Your task to perform on an android device: Clear the shopping cart on ebay.com. Add lenovo thinkpad to the cart on ebay.com, then select checkout. Image 0: 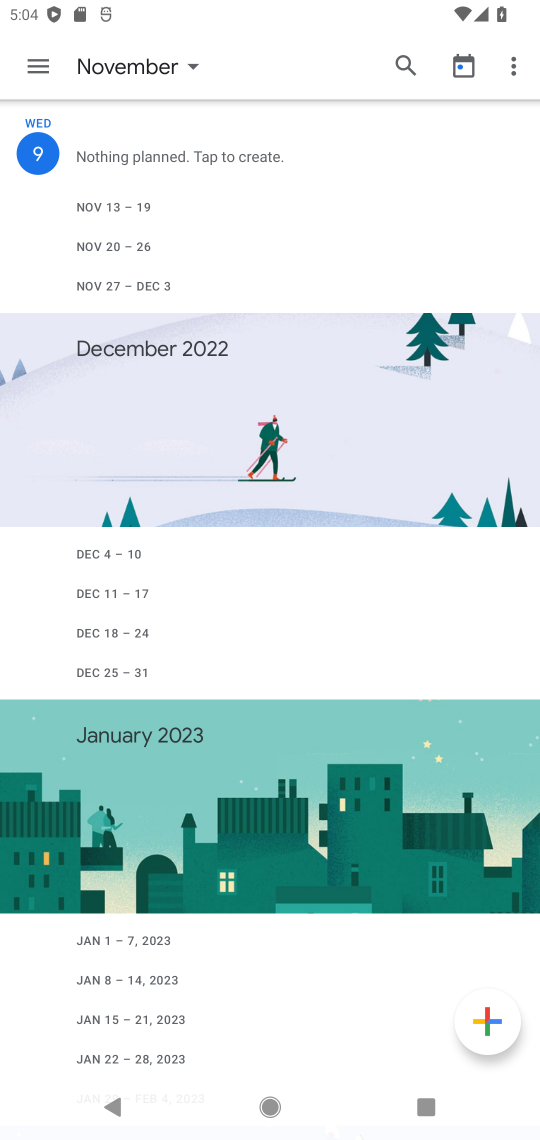
Step 0: press home button
Your task to perform on an android device: Clear the shopping cart on ebay.com. Add lenovo thinkpad to the cart on ebay.com, then select checkout. Image 1: 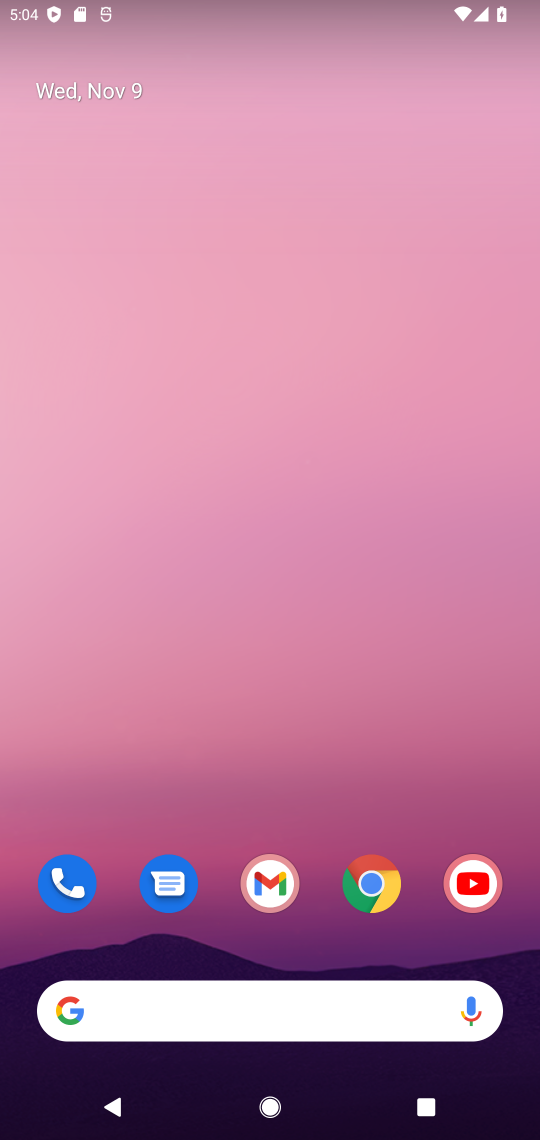
Step 1: click (365, 863)
Your task to perform on an android device: Clear the shopping cart on ebay.com. Add lenovo thinkpad to the cart on ebay.com, then select checkout. Image 2: 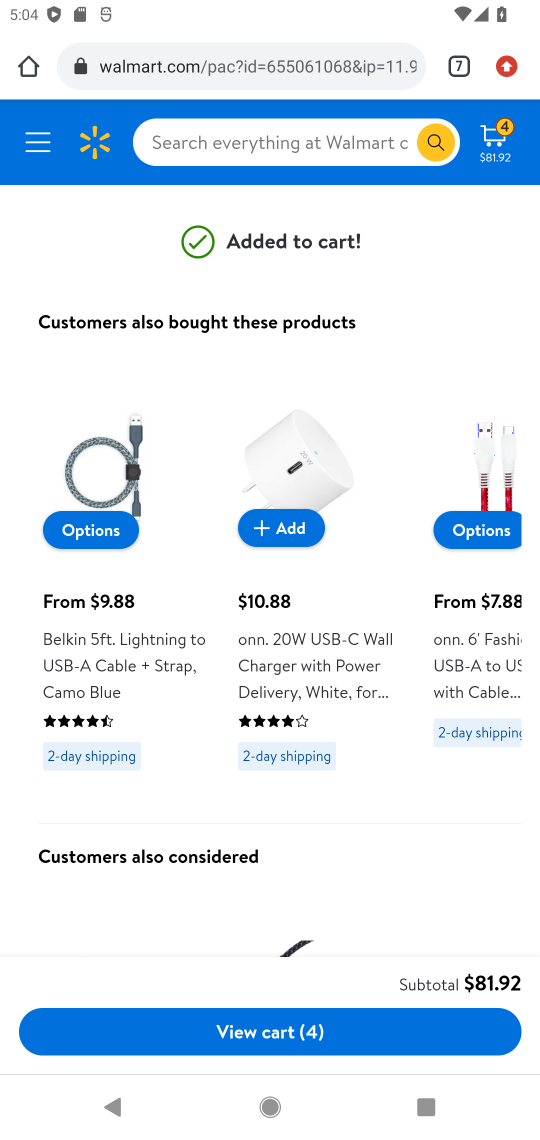
Step 2: click (458, 59)
Your task to perform on an android device: Clear the shopping cart on ebay.com. Add lenovo thinkpad to the cart on ebay.com, then select checkout. Image 3: 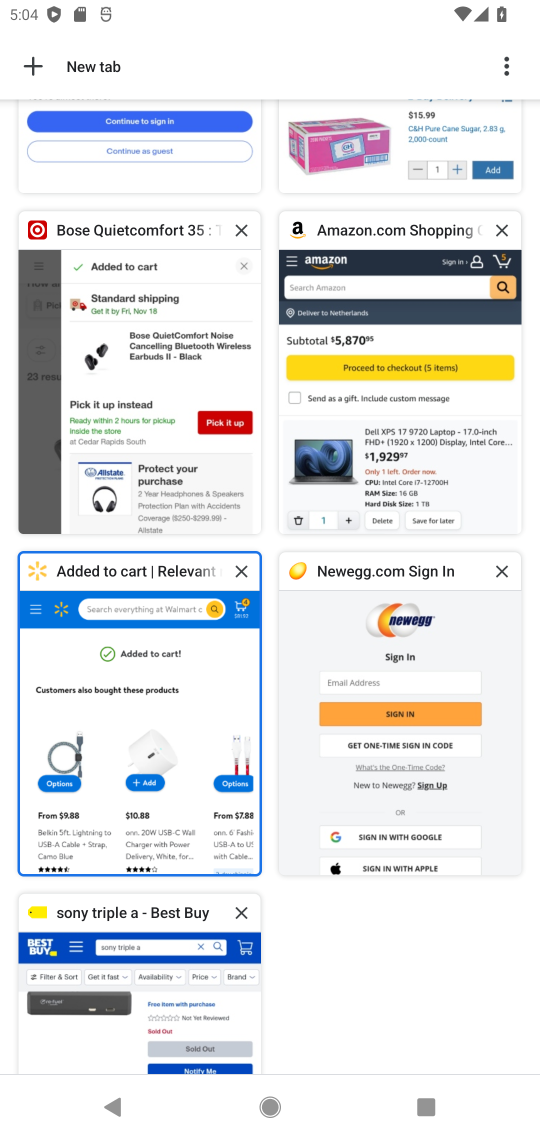
Step 3: drag from (350, 232) to (211, 875)
Your task to perform on an android device: Clear the shopping cart on ebay.com. Add lenovo thinkpad to the cart on ebay.com, then select checkout. Image 4: 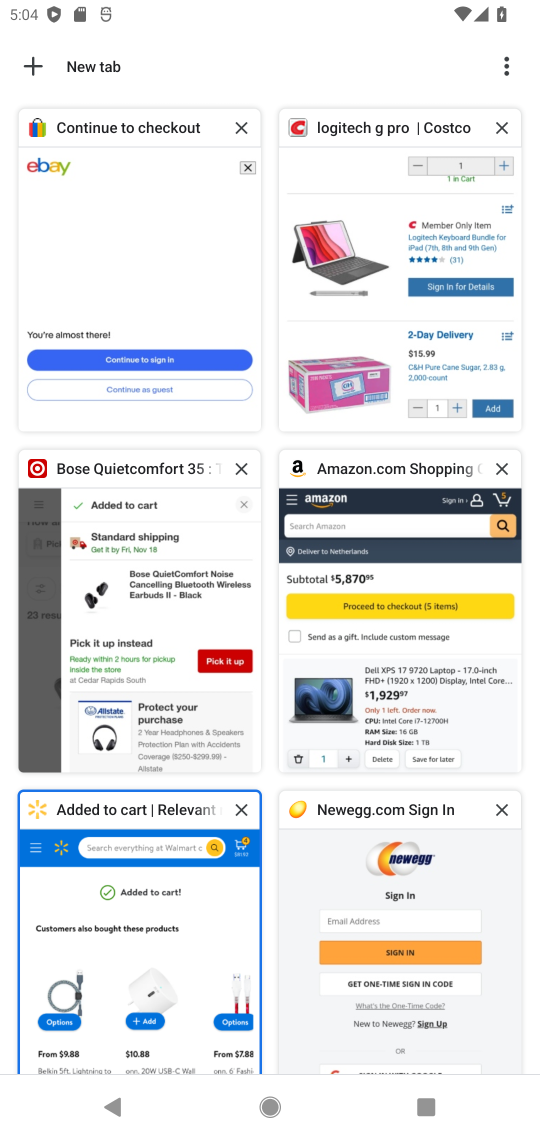
Step 4: click (71, 229)
Your task to perform on an android device: Clear the shopping cart on ebay.com. Add lenovo thinkpad to the cart on ebay.com, then select checkout. Image 5: 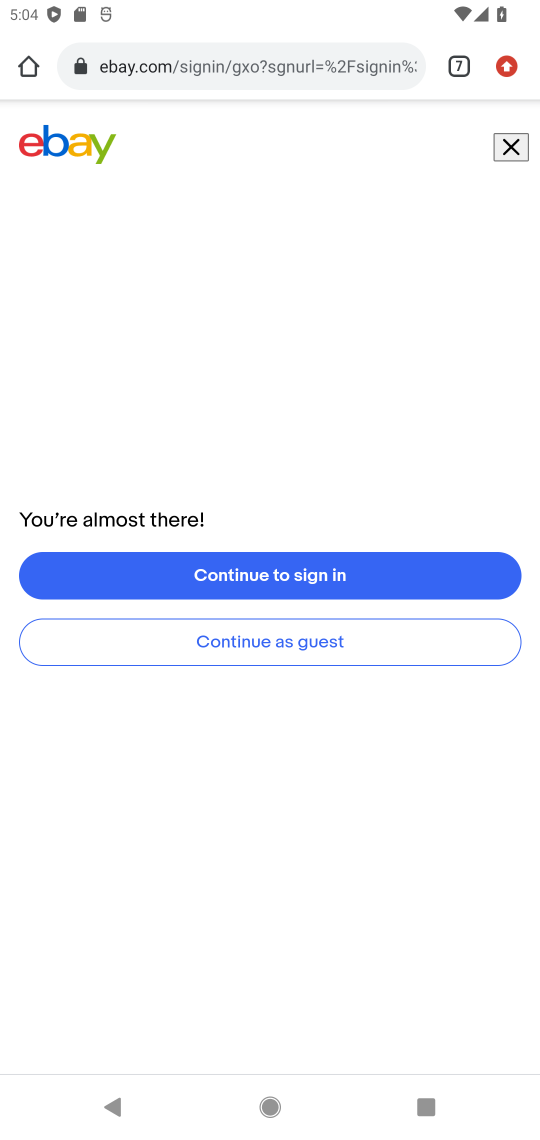
Step 5: press back button
Your task to perform on an android device: Clear the shopping cart on ebay.com. Add lenovo thinkpad to the cart on ebay.com, then select checkout. Image 6: 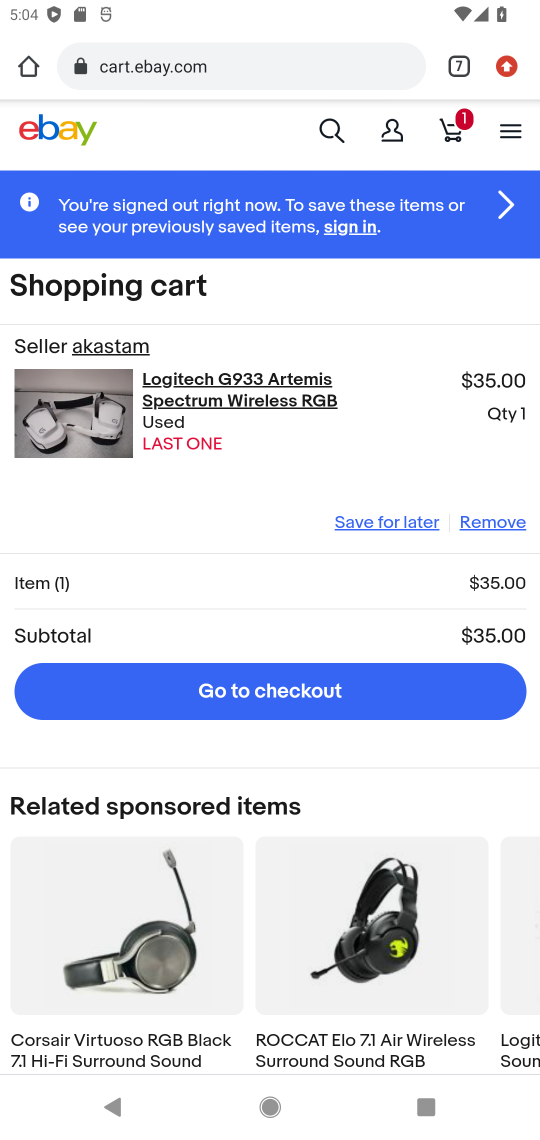
Step 6: click (329, 131)
Your task to perform on an android device: Clear the shopping cart on ebay.com. Add lenovo thinkpad to the cart on ebay.com, then select checkout. Image 7: 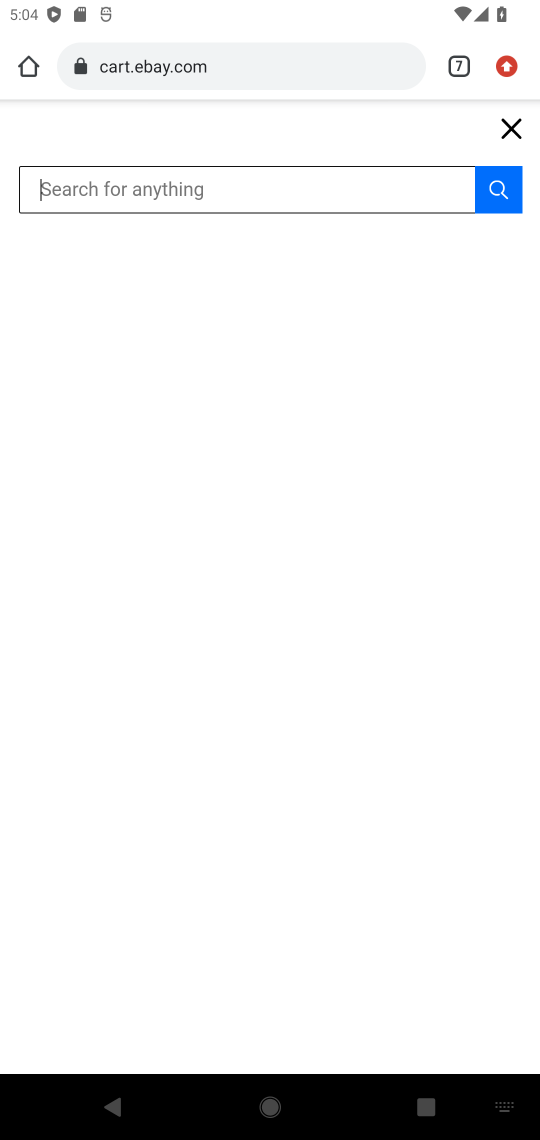
Step 7: type "lenovo thinkpad"
Your task to perform on an android device: Clear the shopping cart on ebay.com. Add lenovo thinkpad to the cart on ebay.com, then select checkout. Image 8: 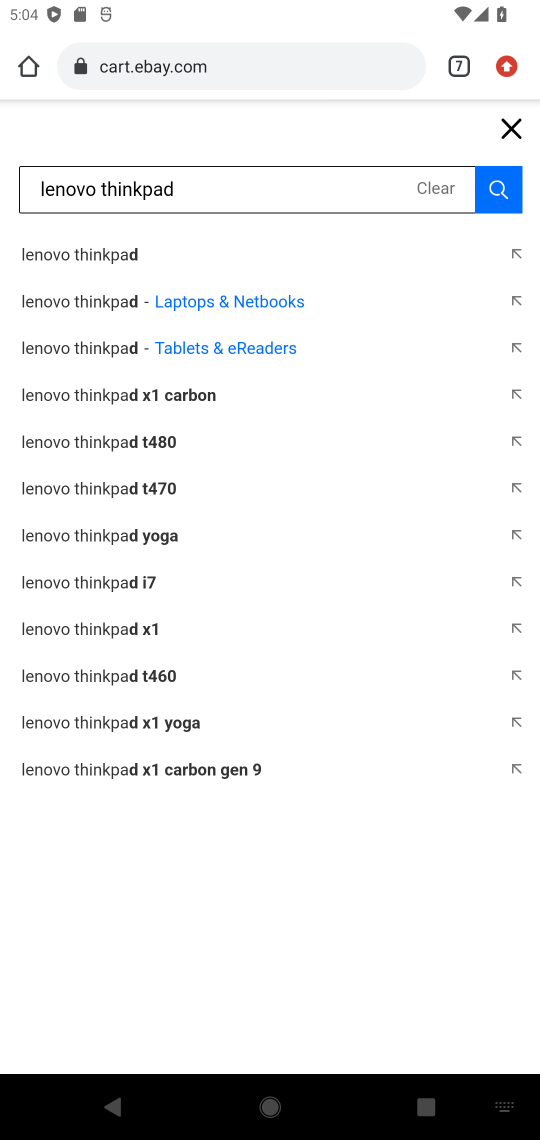
Step 8: click (67, 298)
Your task to perform on an android device: Clear the shopping cart on ebay.com. Add lenovo thinkpad to the cart on ebay.com, then select checkout. Image 9: 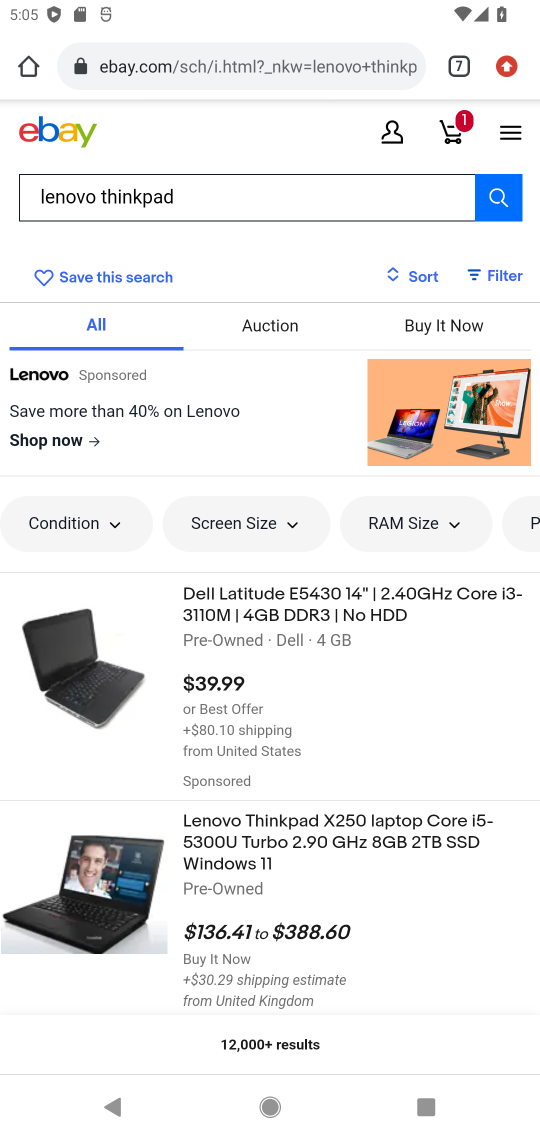
Step 9: click (334, 841)
Your task to perform on an android device: Clear the shopping cart on ebay.com. Add lenovo thinkpad to the cart on ebay.com, then select checkout. Image 10: 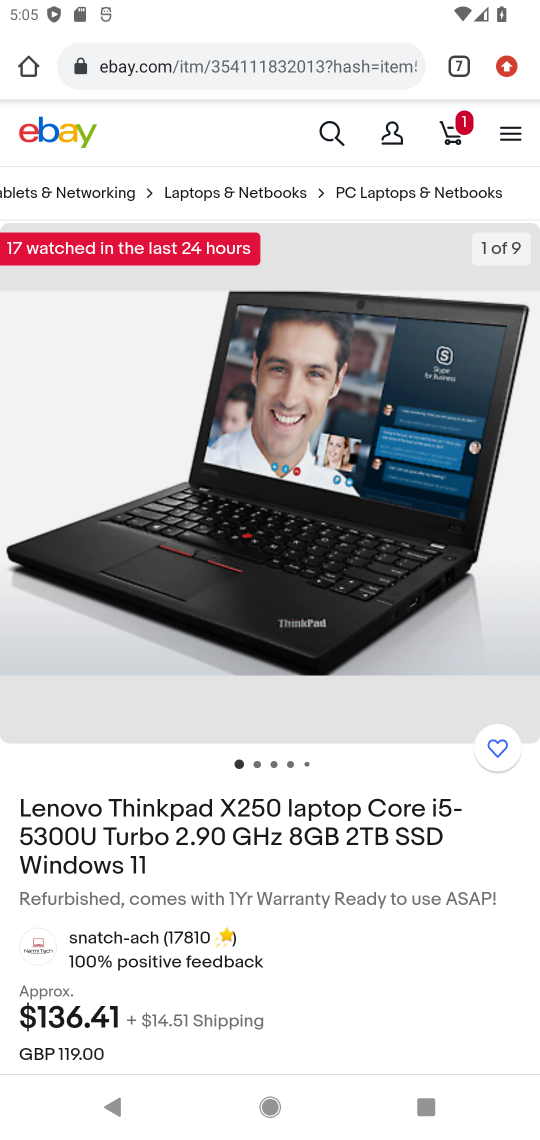
Step 10: drag from (287, 914) to (350, 279)
Your task to perform on an android device: Clear the shopping cart on ebay.com. Add lenovo thinkpad to the cart on ebay.com, then select checkout. Image 11: 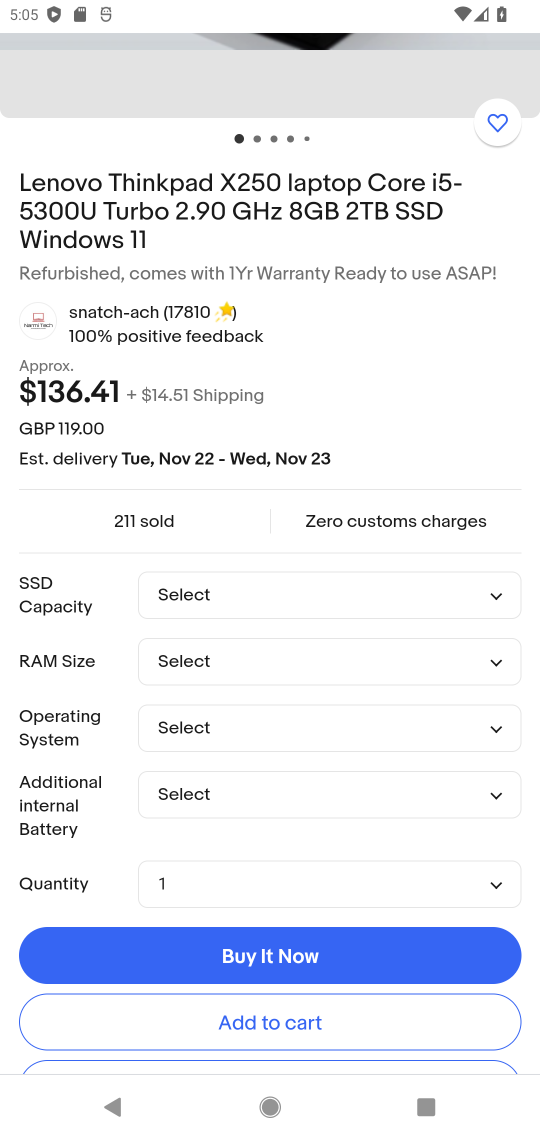
Step 11: click (285, 1030)
Your task to perform on an android device: Clear the shopping cart on ebay.com. Add lenovo thinkpad to the cart on ebay.com, then select checkout. Image 12: 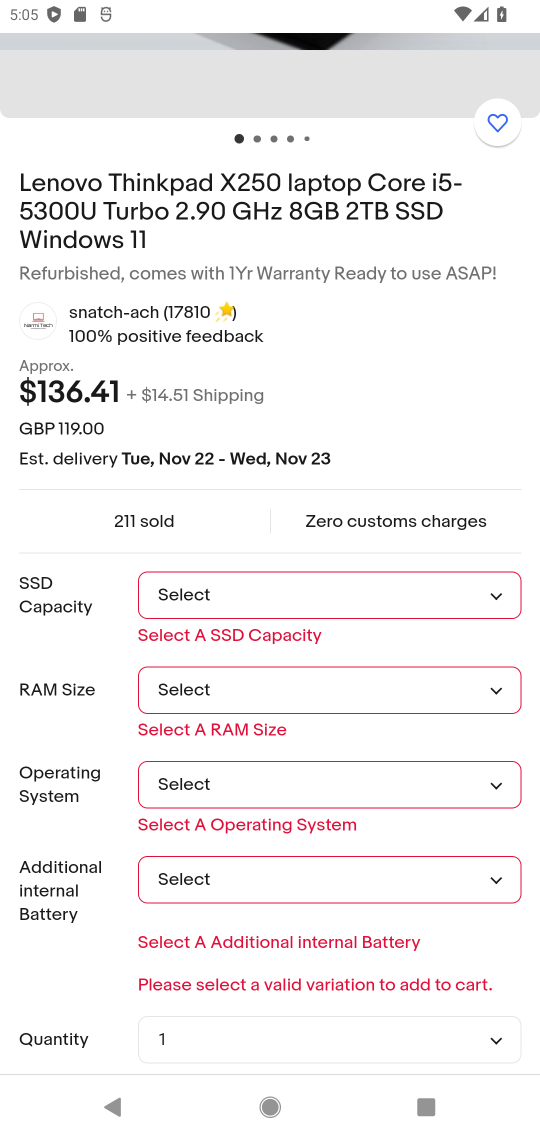
Step 12: click (495, 581)
Your task to perform on an android device: Clear the shopping cart on ebay.com. Add lenovo thinkpad to the cart on ebay.com, then select checkout. Image 13: 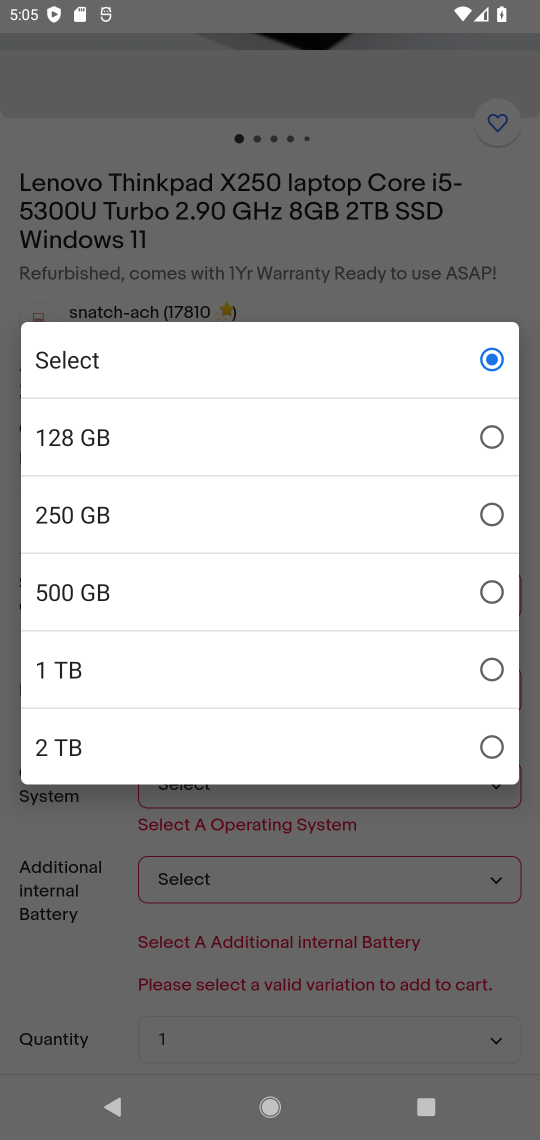
Step 13: click (495, 436)
Your task to perform on an android device: Clear the shopping cart on ebay.com. Add lenovo thinkpad to the cart on ebay.com, then select checkout. Image 14: 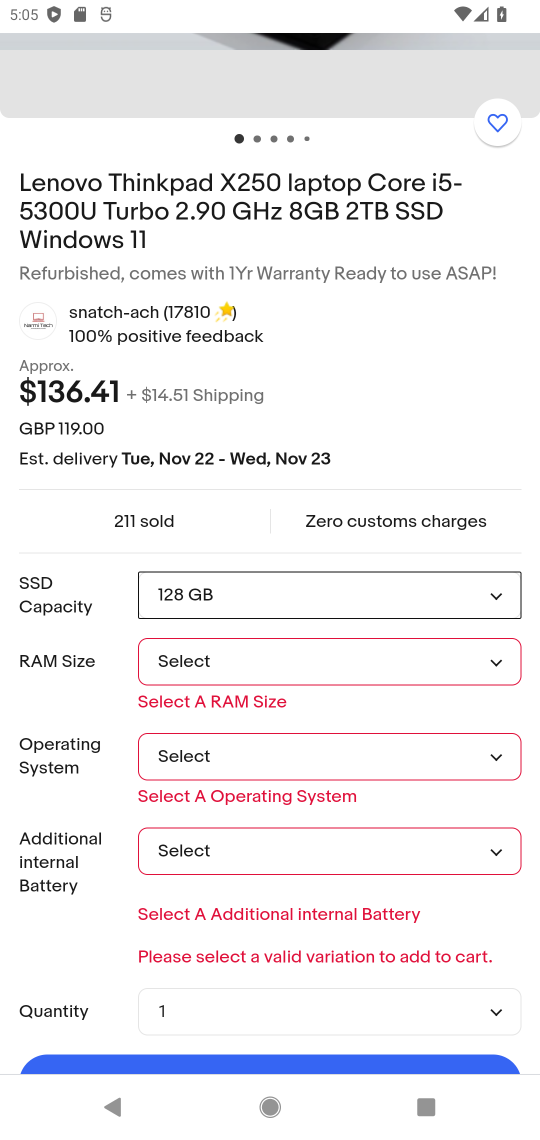
Step 14: click (483, 660)
Your task to perform on an android device: Clear the shopping cart on ebay.com. Add lenovo thinkpad to the cart on ebay.com, then select checkout. Image 15: 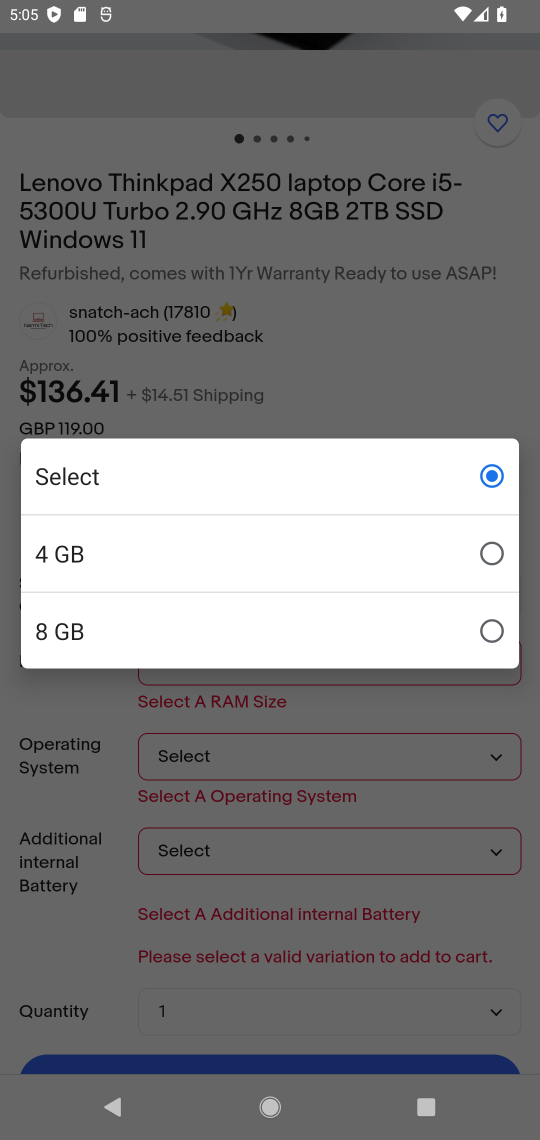
Step 15: click (486, 553)
Your task to perform on an android device: Clear the shopping cart on ebay.com. Add lenovo thinkpad to the cart on ebay.com, then select checkout. Image 16: 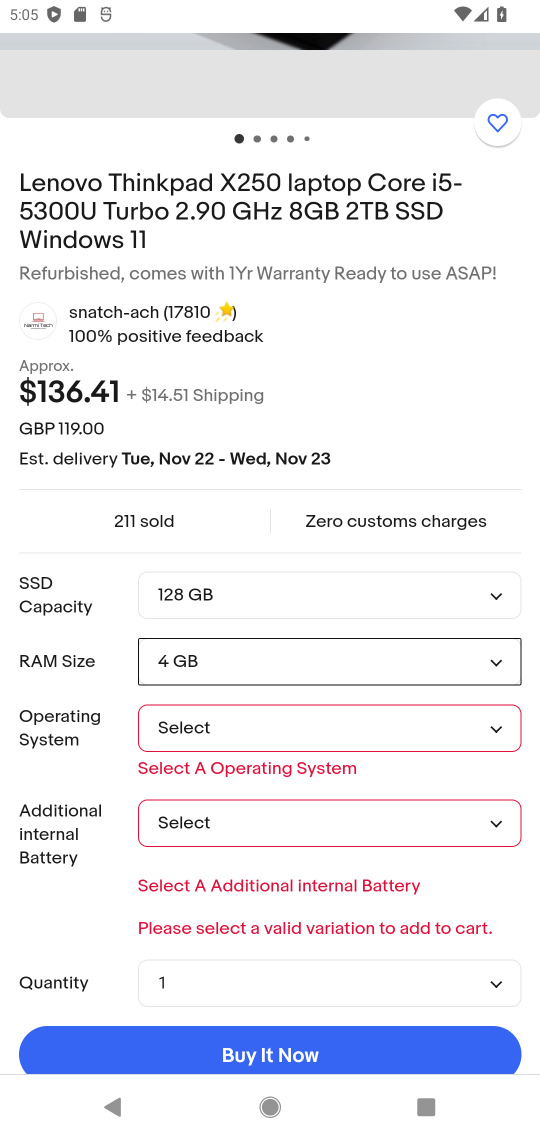
Step 16: click (497, 728)
Your task to perform on an android device: Clear the shopping cart on ebay.com. Add lenovo thinkpad to the cart on ebay.com, then select checkout. Image 17: 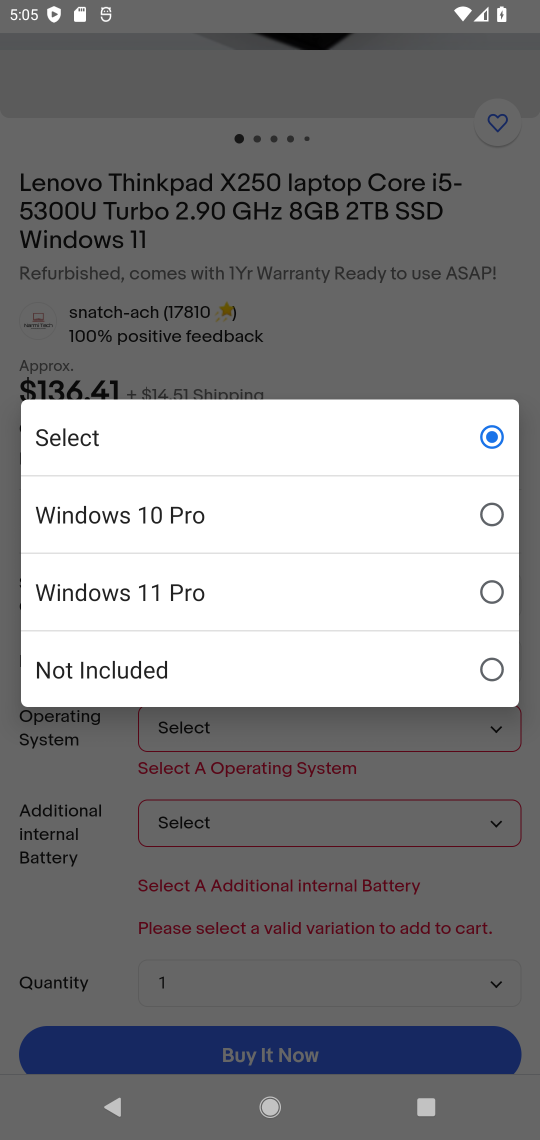
Step 17: click (488, 516)
Your task to perform on an android device: Clear the shopping cart on ebay.com. Add lenovo thinkpad to the cart on ebay.com, then select checkout. Image 18: 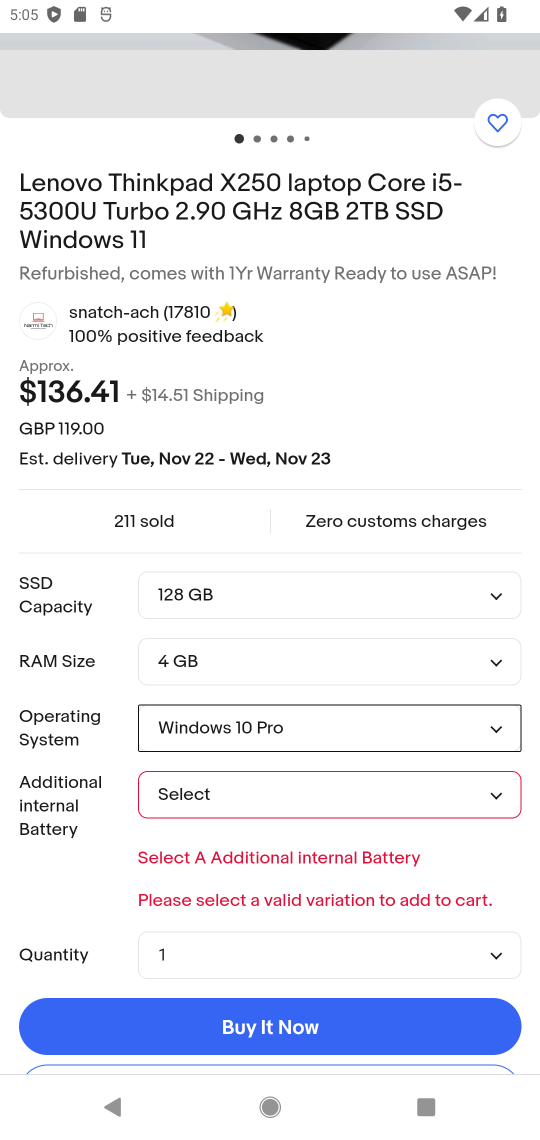
Step 18: click (501, 792)
Your task to perform on an android device: Clear the shopping cart on ebay.com. Add lenovo thinkpad to the cart on ebay.com, then select checkout. Image 19: 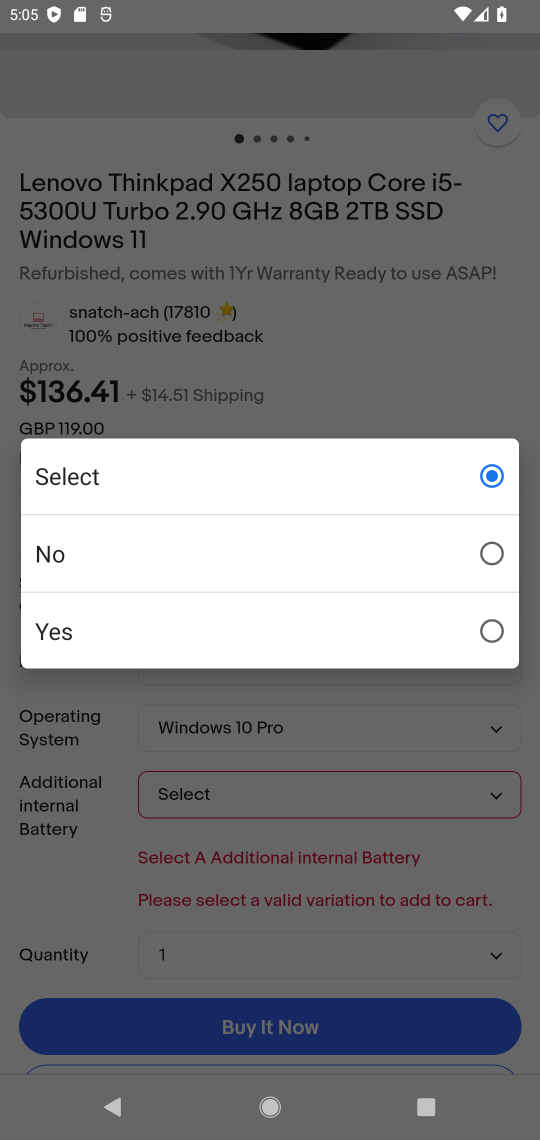
Step 19: click (488, 557)
Your task to perform on an android device: Clear the shopping cart on ebay.com. Add lenovo thinkpad to the cart on ebay.com, then select checkout. Image 20: 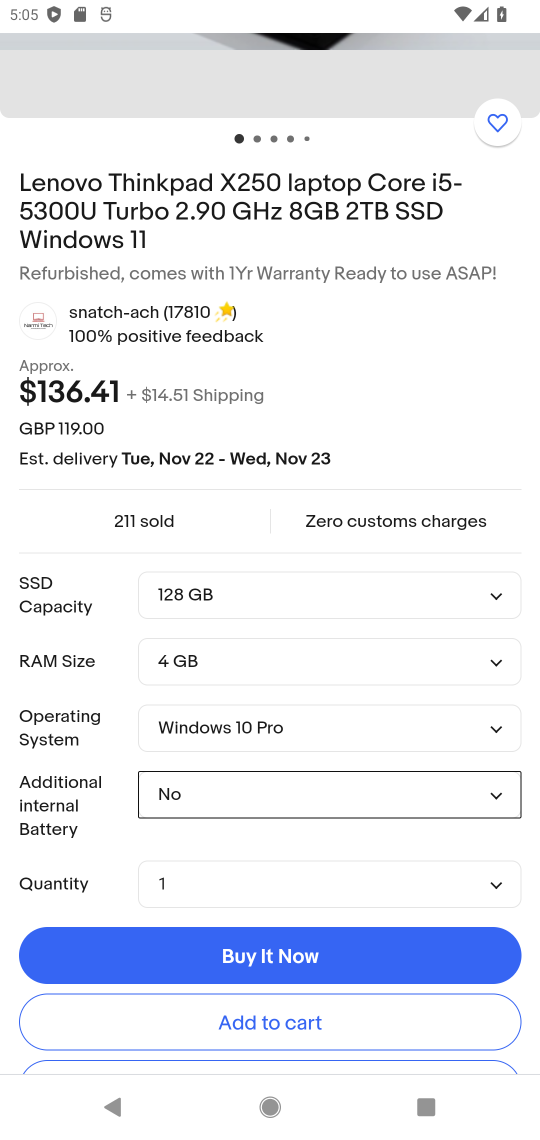
Step 20: click (303, 1016)
Your task to perform on an android device: Clear the shopping cart on ebay.com. Add lenovo thinkpad to the cart on ebay.com, then select checkout. Image 21: 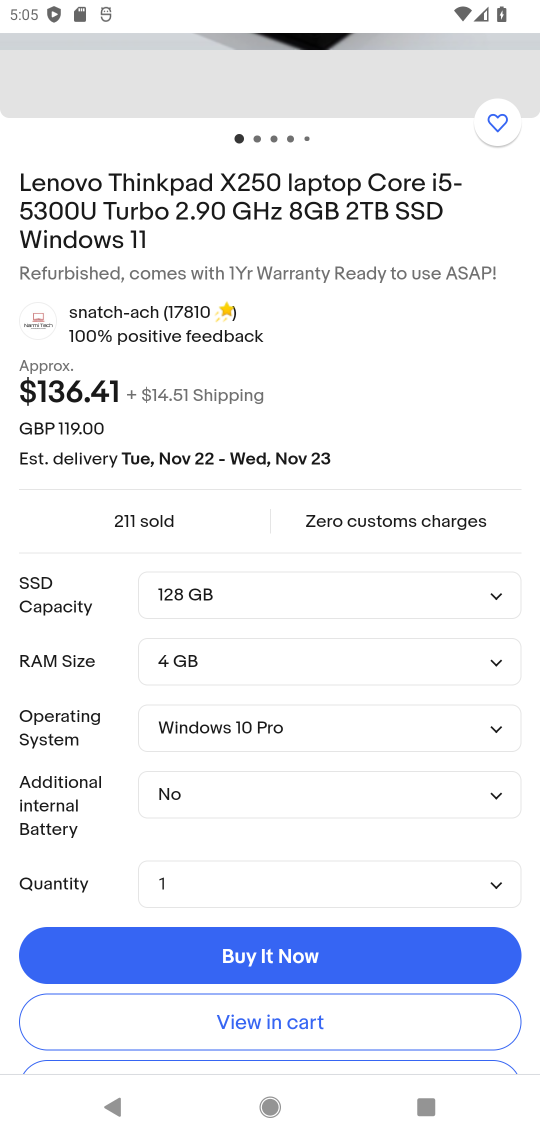
Step 21: click (303, 1015)
Your task to perform on an android device: Clear the shopping cart on ebay.com. Add lenovo thinkpad to the cart on ebay.com, then select checkout. Image 22: 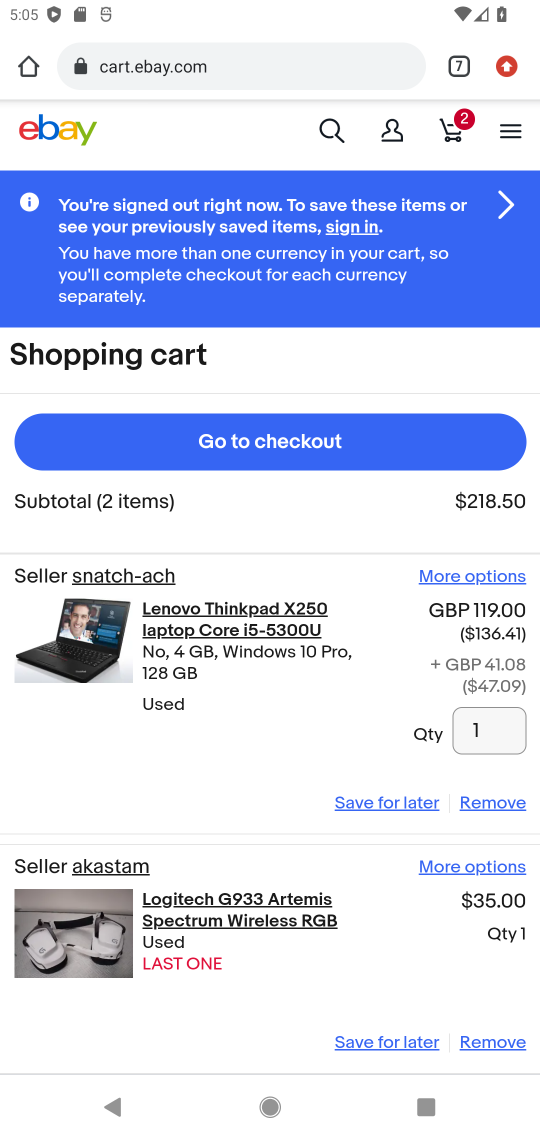
Step 22: click (335, 442)
Your task to perform on an android device: Clear the shopping cart on ebay.com. Add lenovo thinkpad to the cart on ebay.com, then select checkout. Image 23: 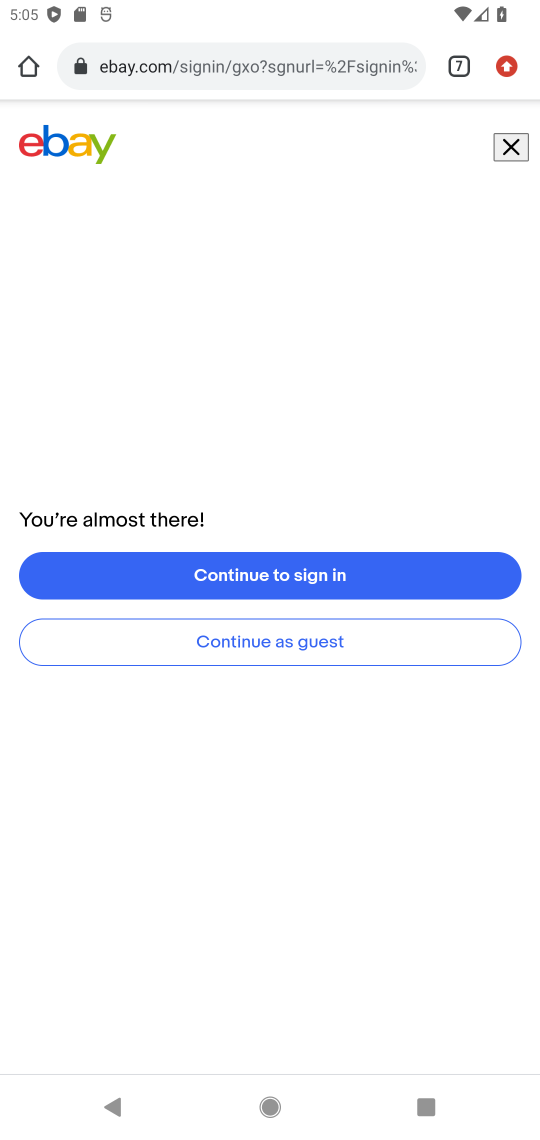
Step 23: task complete